Your task to perform on an android device: Open Youtube and go to "Your channel" Image 0: 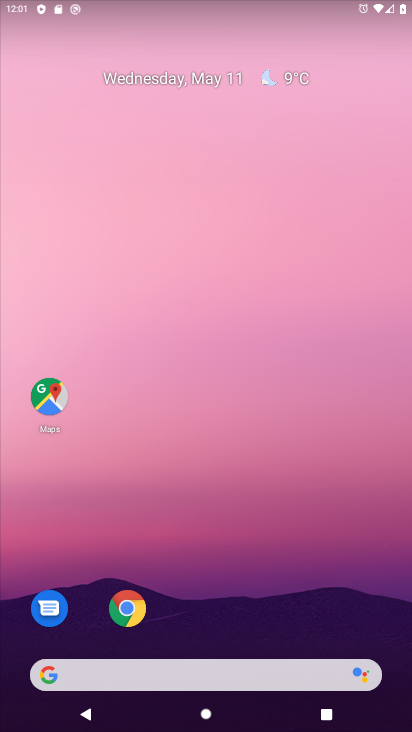
Step 0: drag from (187, 543) to (217, 244)
Your task to perform on an android device: Open Youtube and go to "Your channel" Image 1: 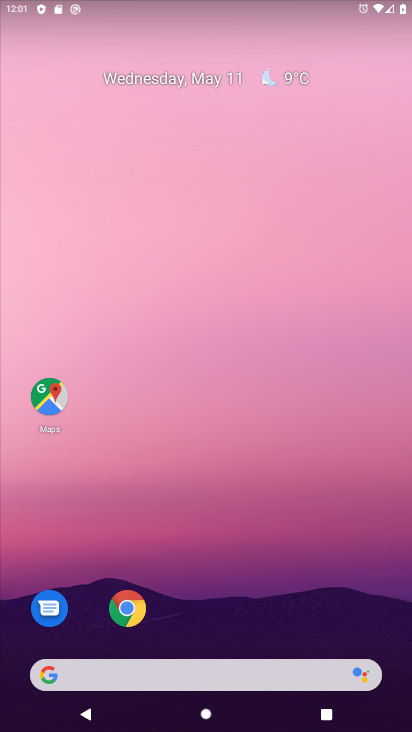
Step 1: drag from (198, 584) to (237, 212)
Your task to perform on an android device: Open Youtube and go to "Your channel" Image 2: 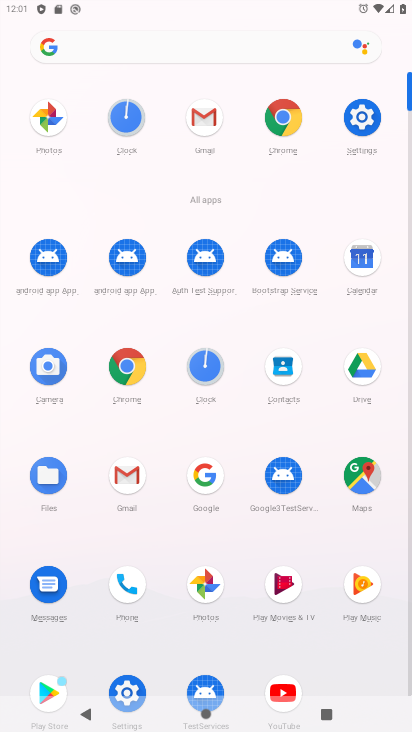
Step 2: drag from (214, 658) to (292, 315)
Your task to perform on an android device: Open Youtube and go to "Your channel" Image 3: 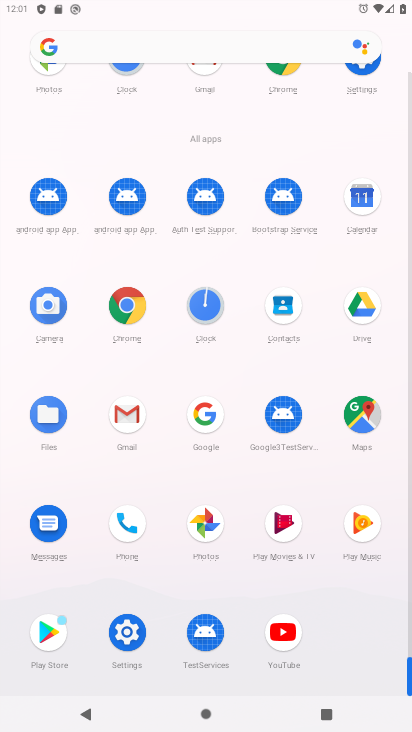
Step 3: click (276, 638)
Your task to perform on an android device: Open Youtube and go to "Your channel" Image 4: 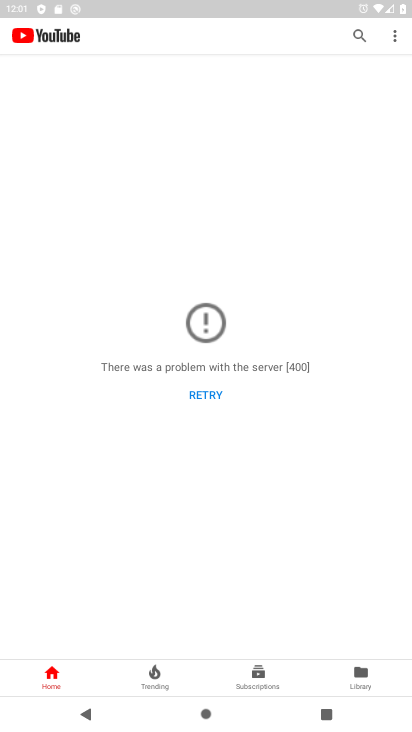
Step 4: click (342, 678)
Your task to perform on an android device: Open Youtube and go to "Your channel" Image 5: 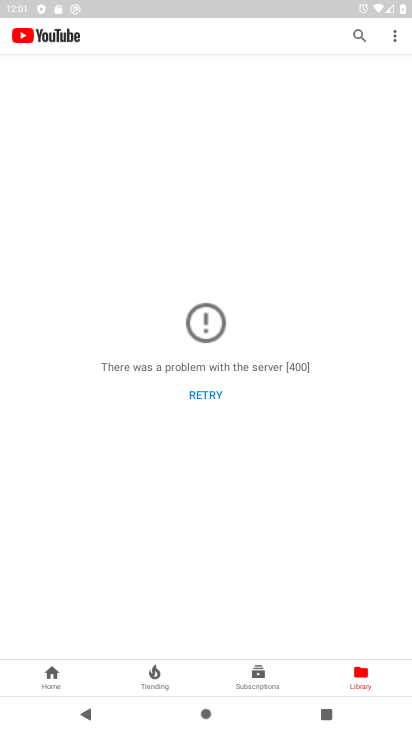
Step 5: task complete